Your task to perform on an android device: Is it going to rain today? Image 0: 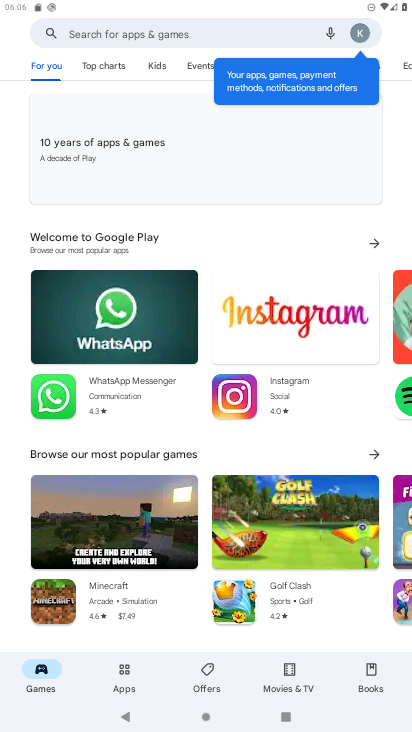
Step 0: press home button
Your task to perform on an android device: Is it going to rain today? Image 1: 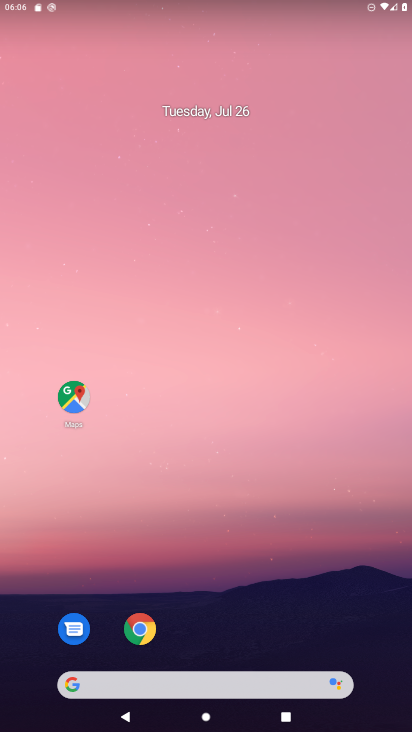
Step 1: click (137, 678)
Your task to perform on an android device: Is it going to rain today? Image 2: 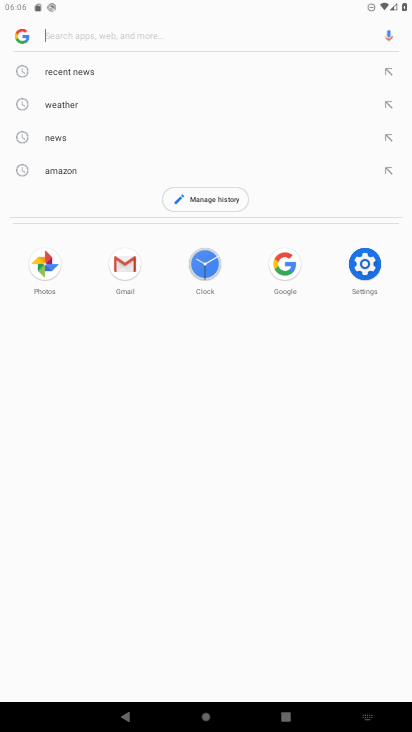
Step 2: click (66, 104)
Your task to perform on an android device: Is it going to rain today? Image 3: 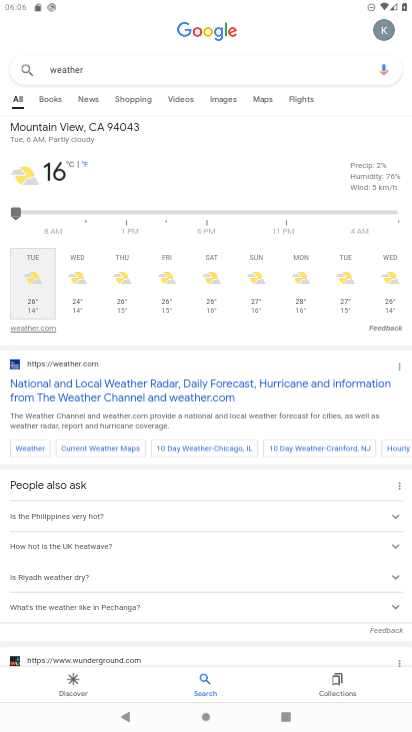
Step 3: task complete